Your task to perform on an android device: turn off location history Image 0: 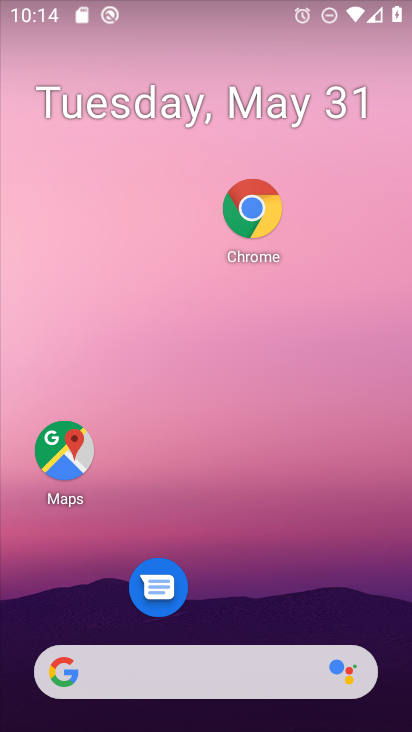
Step 0: press home button
Your task to perform on an android device: turn off location history Image 1: 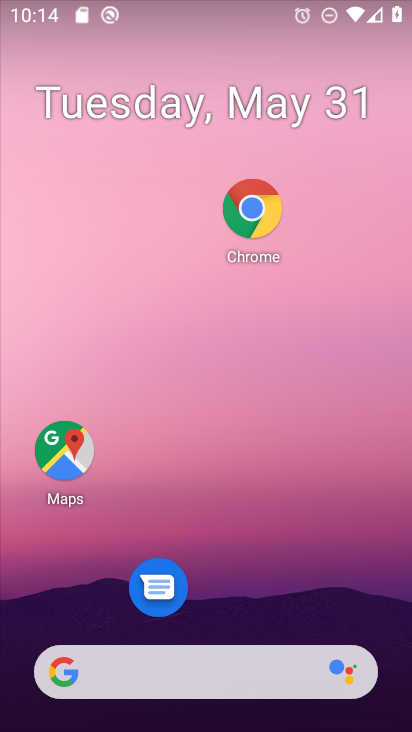
Step 1: drag from (230, 614) to (266, 212)
Your task to perform on an android device: turn off location history Image 2: 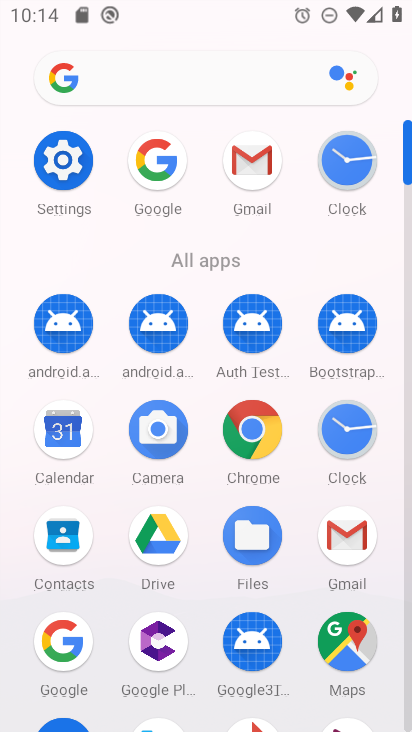
Step 2: click (63, 151)
Your task to perform on an android device: turn off location history Image 3: 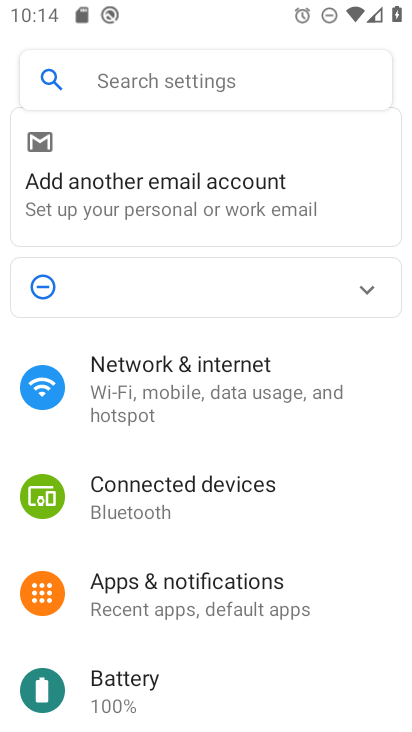
Step 3: drag from (193, 678) to (205, 181)
Your task to perform on an android device: turn off location history Image 4: 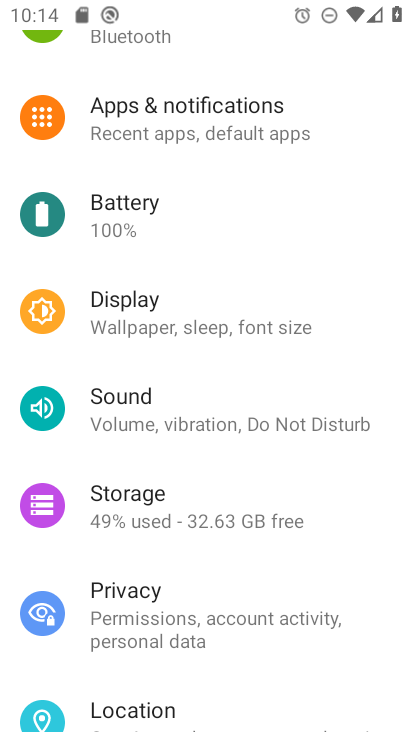
Step 4: click (194, 710)
Your task to perform on an android device: turn off location history Image 5: 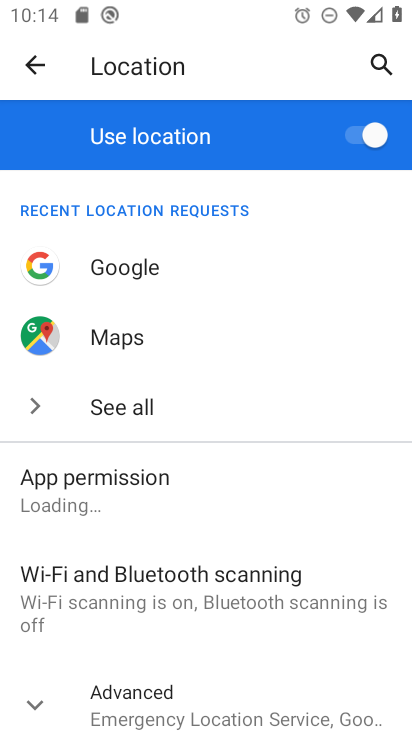
Step 5: click (93, 718)
Your task to perform on an android device: turn off location history Image 6: 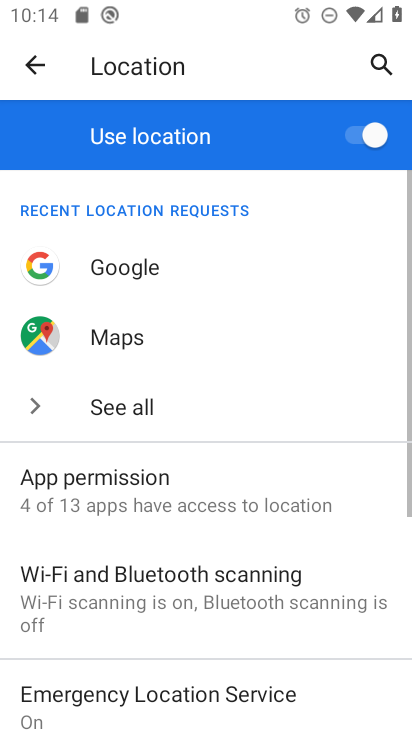
Step 6: drag from (184, 672) to (204, 368)
Your task to perform on an android device: turn off location history Image 7: 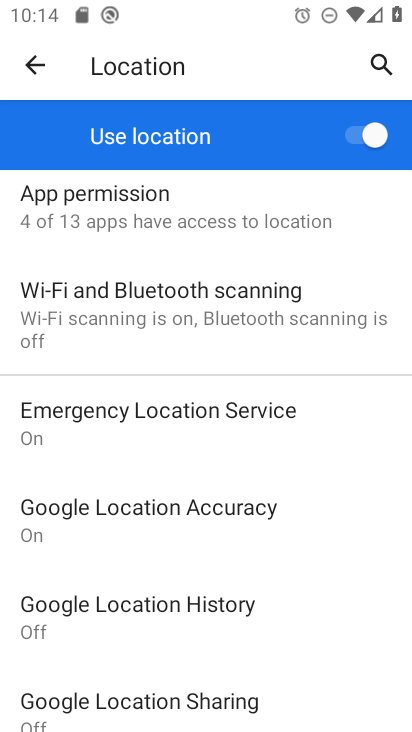
Step 7: click (180, 611)
Your task to perform on an android device: turn off location history Image 8: 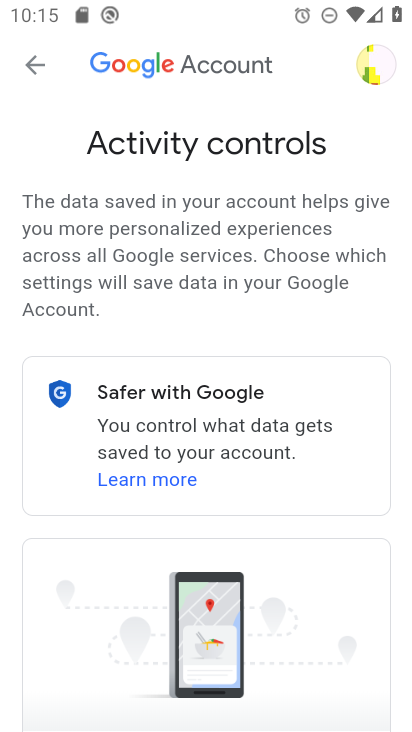
Step 8: drag from (259, 659) to (263, 203)
Your task to perform on an android device: turn off location history Image 9: 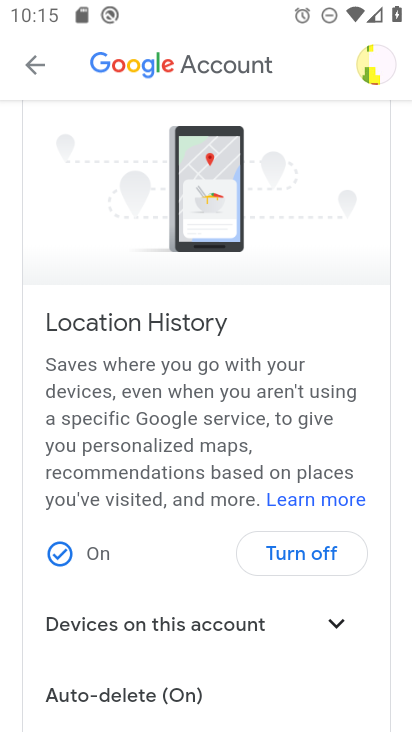
Step 9: click (298, 544)
Your task to perform on an android device: turn off location history Image 10: 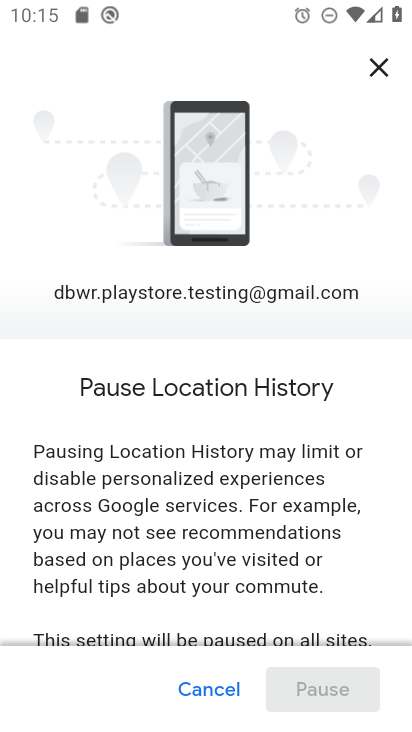
Step 10: drag from (261, 598) to (248, 93)
Your task to perform on an android device: turn off location history Image 11: 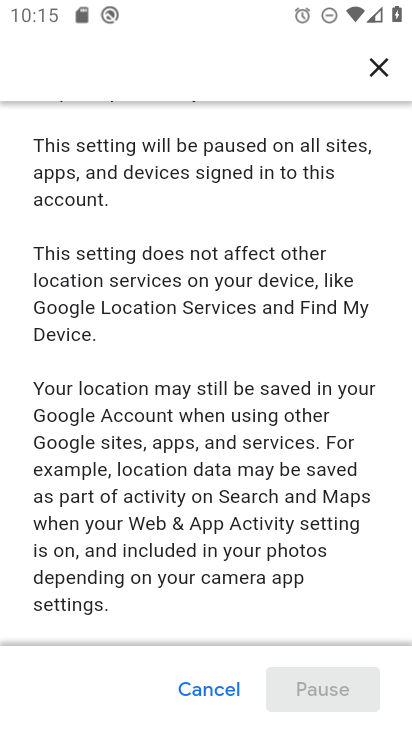
Step 11: drag from (224, 603) to (212, 90)
Your task to perform on an android device: turn off location history Image 12: 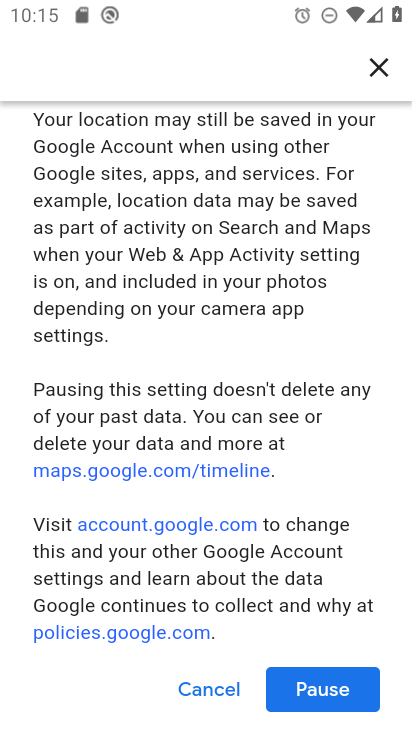
Step 12: click (318, 685)
Your task to perform on an android device: turn off location history Image 13: 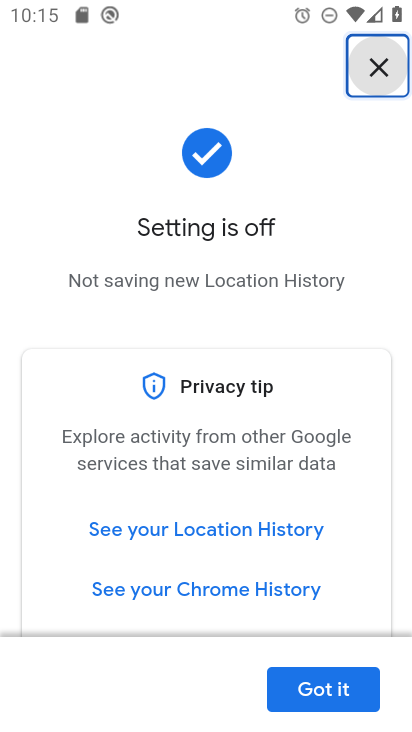
Step 13: click (312, 695)
Your task to perform on an android device: turn off location history Image 14: 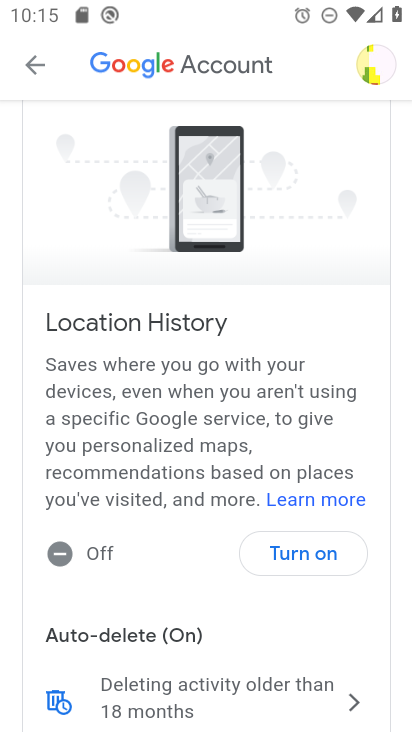
Step 14: task complete